Your task to perform on an android device: turn on the 24-hour format for clock Image 0: 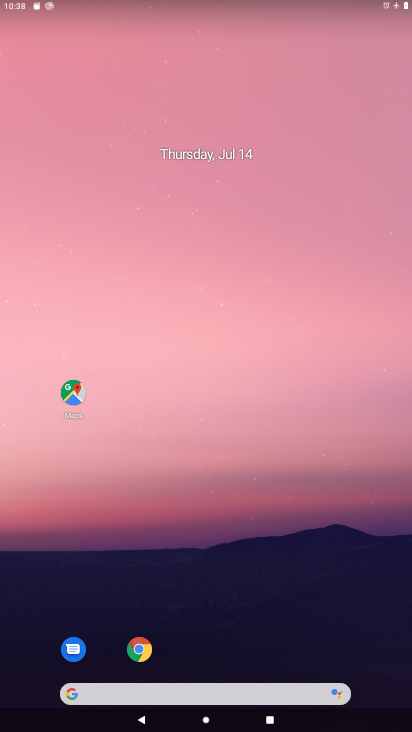
Step 0: drag from (253, 567) to (310, 4)
Your task to perform on an android device: turn on the 24-hour format for clock Image 1: 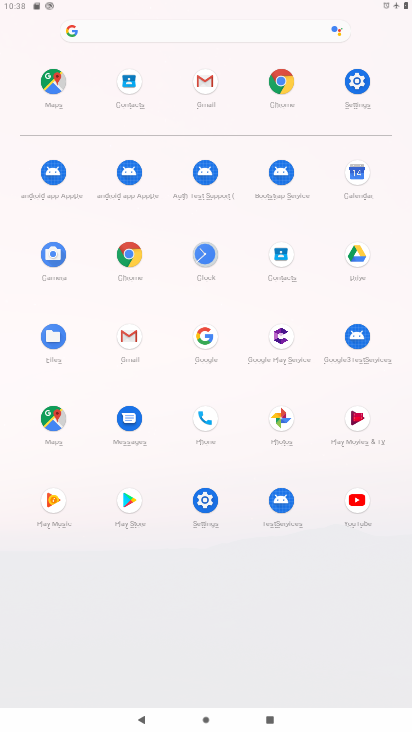
Step 1: click (215, 260)
Your task to perform on an android device: turn on the 24-hour format for clock Image 2: 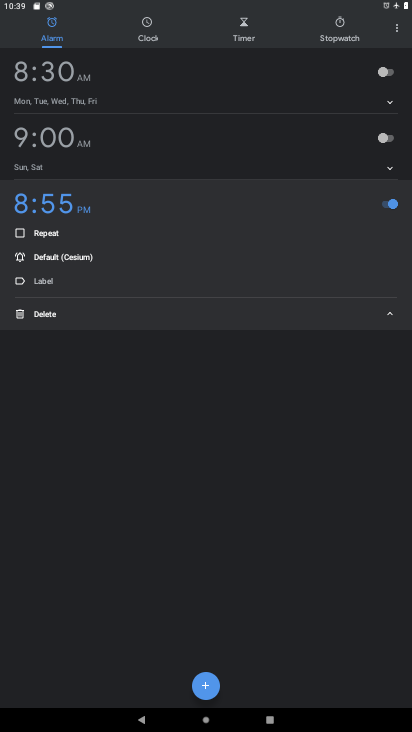
Step 2: click (400, 26)
Your task to perform on an android device: turn on the 24-hour format for clock Image 3: 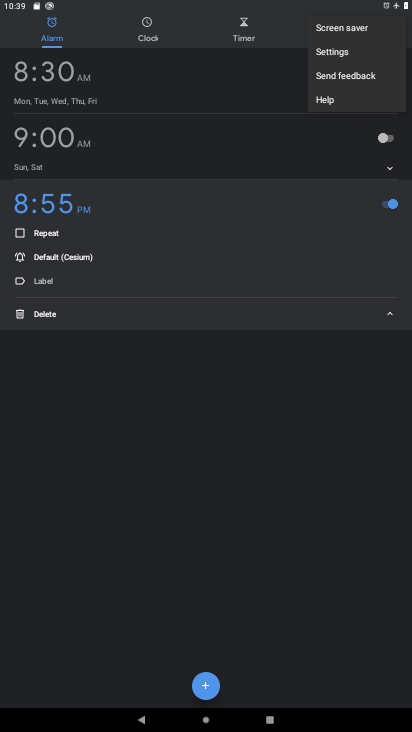
Step 3: click (337, 58)
Your task to perform on an android device: turn on the 24-hour format for clock Image 4: 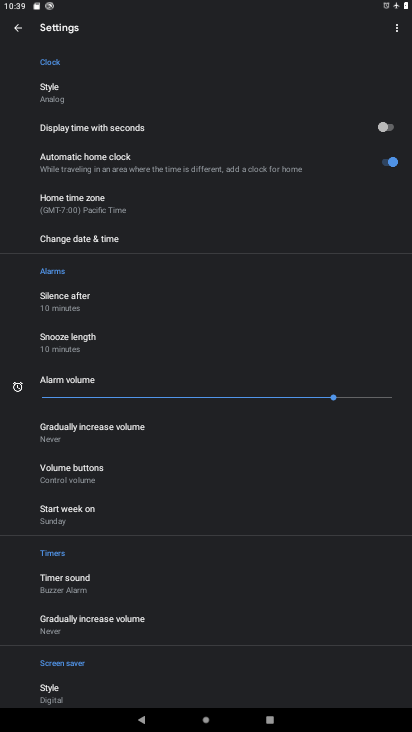
Step 4: click (125, 244)
Your task to perform on an android device: turn on the 24-hour format for clock Image 5: 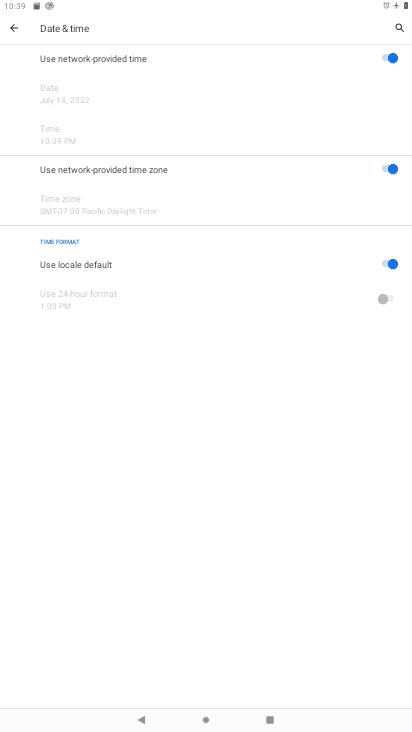
Step 5: click (395, 262)
Your task to perform on an android device: turn on the 24-hour format for clock Image 6: 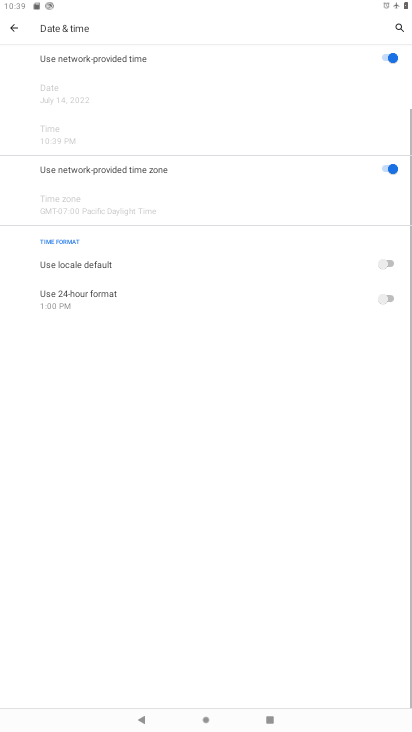
Step 6: click (390, 295)
Your task to perform on an android device: turn on the 24-hour format for clock Image 7: 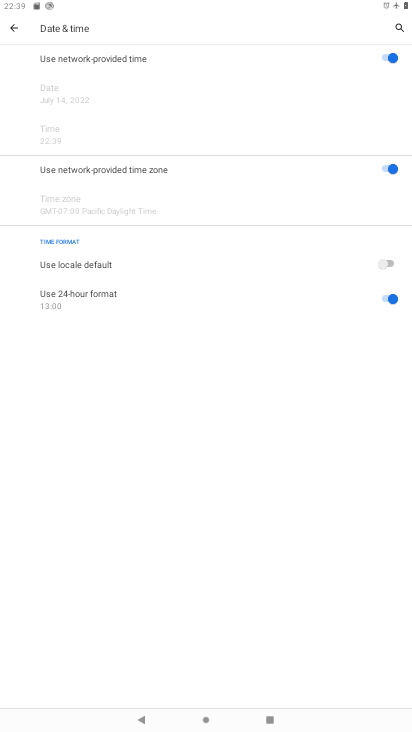
Step 7: task complete